Your task to perform on an android device: Open wifi settings Image 0: 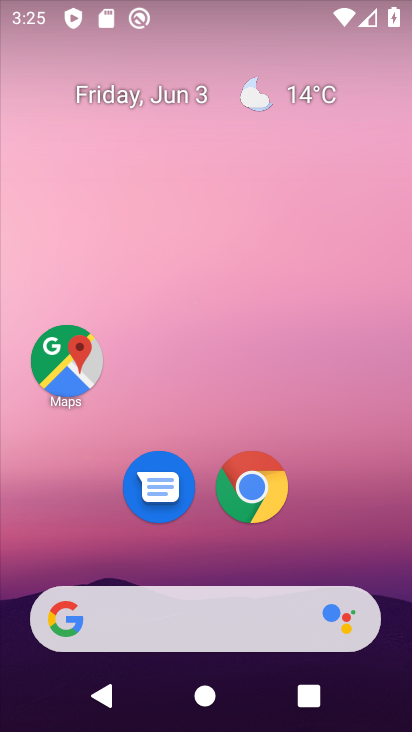
Step 0: drag from (138, 24) to (164, 423)
Your task to perform on an android device: Open wifi settings Image 1: 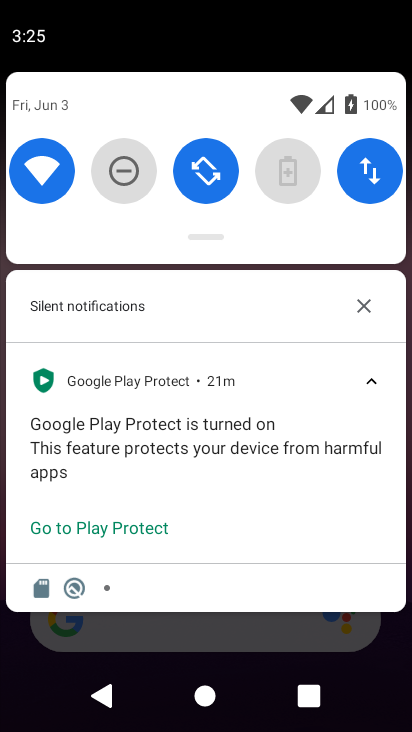
Step 1: click (49, 170)
Your task to perform on an android device: Open wifi settings Image 2: 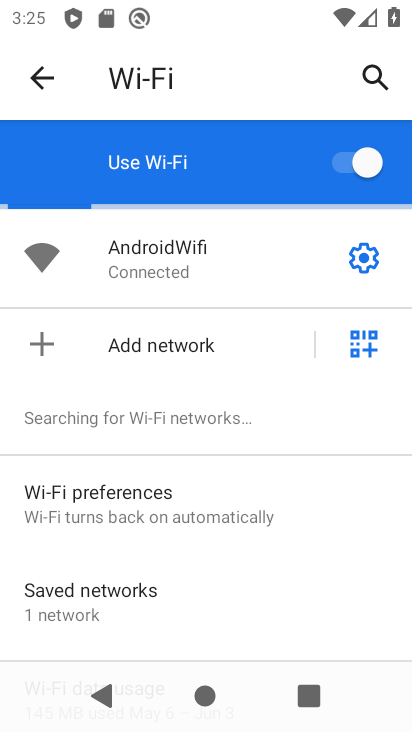
Step 2: task complete